Your task to perform on an android device: Go to settings Image 0: 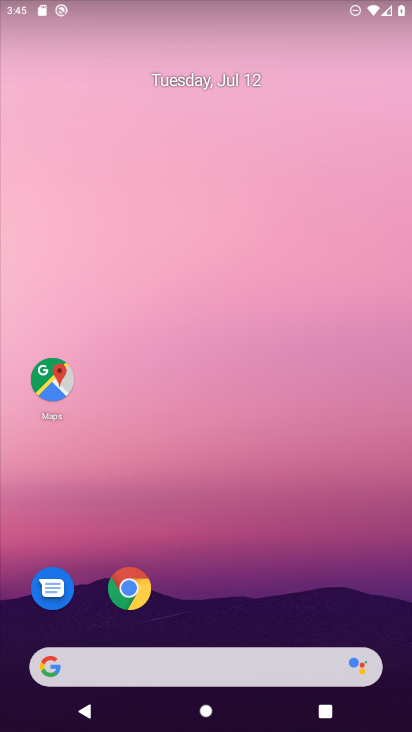
Step 0: drag from (264, 616) to (234, 58)
Your task to perform on an android device: Go to settings Image 1: 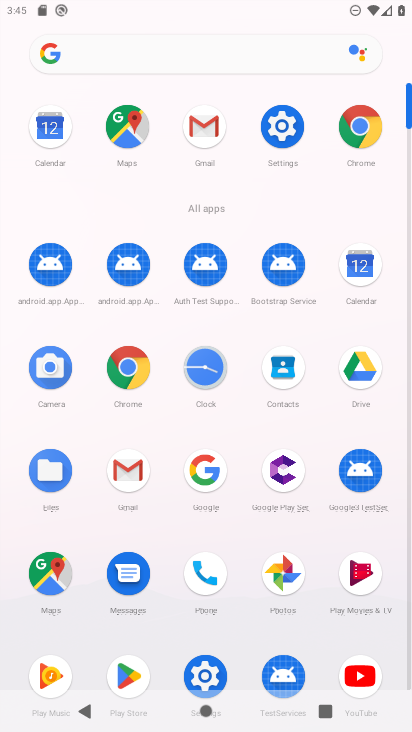
Step 1: click (274, 127)
Your task to perform on an android device: Go to settings Image 2: 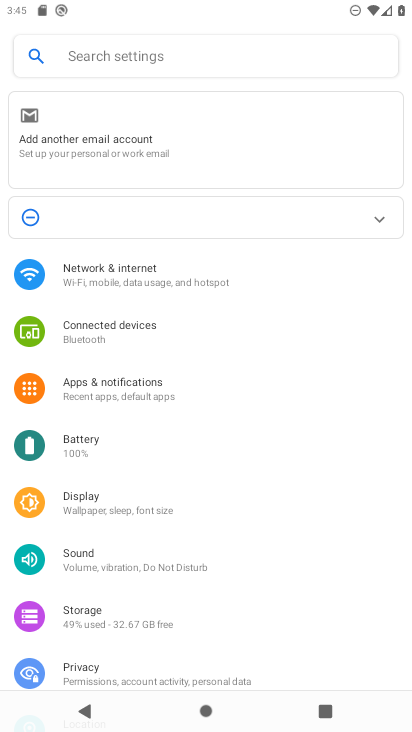
Step 2: task complete